Your task to perform on an android device: turn off location history Image 0: 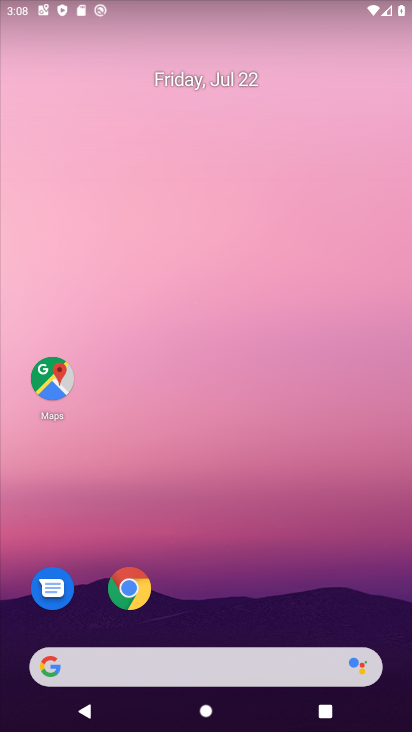
Step 0: drag from (195, 617) to (216, 151)
Your task to perform on an android device: turn off location history Image 1: 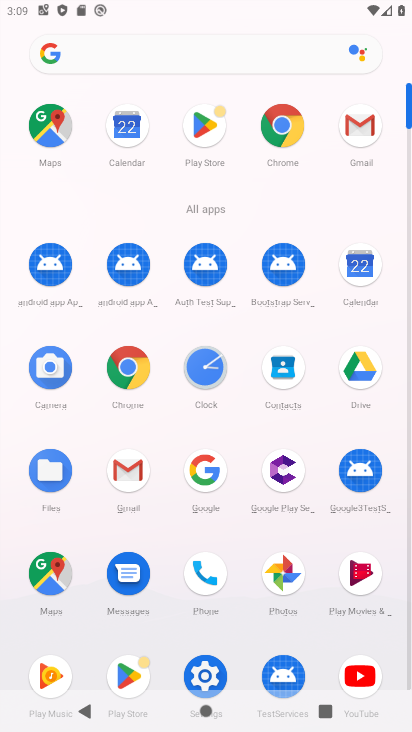
Step 1: click (204, 677)
Your task to perform on an android device: turn off location history Image 2: 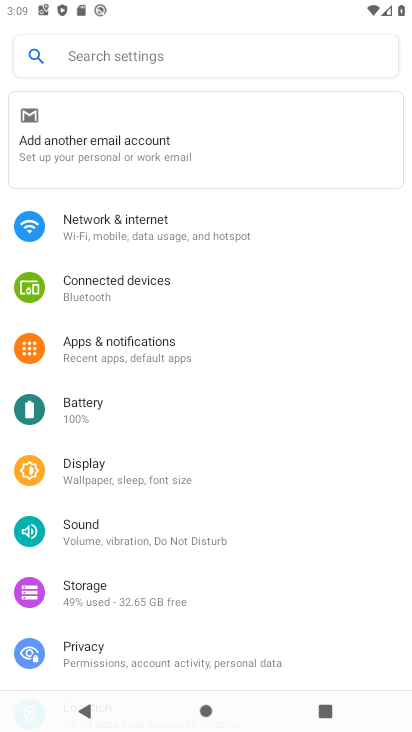
Step 2: drag from (113, 605) to (113, 219)
Your task to perform on an android device: turn off location history Image 3: 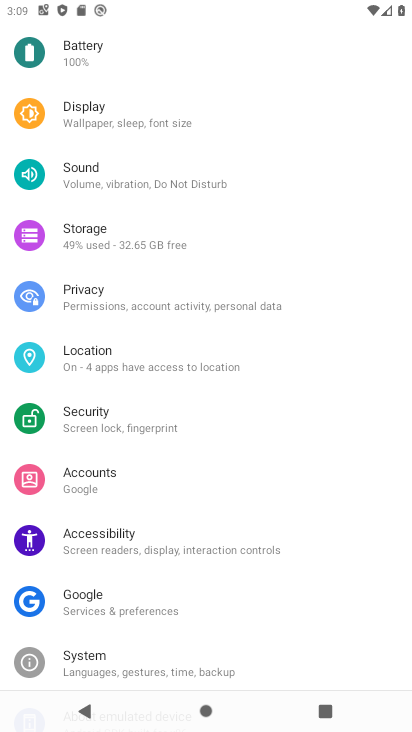
Step 3: click (110, 363)
Your task to perform on an android device: turn off location history Image 4: 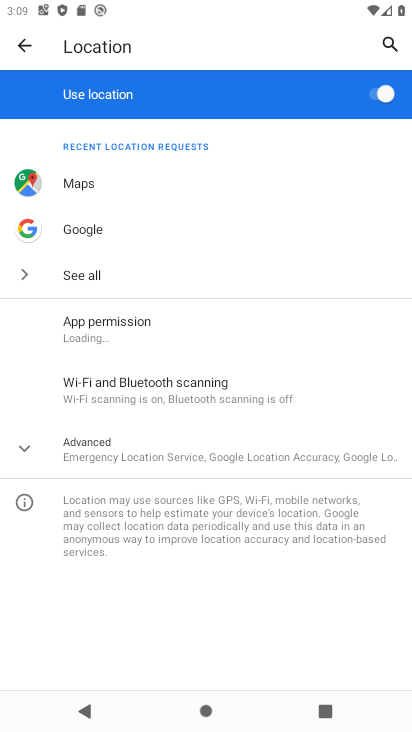
Step 4: click (135, 445)
Your task to perform on an android device: turn off location history Image 5: 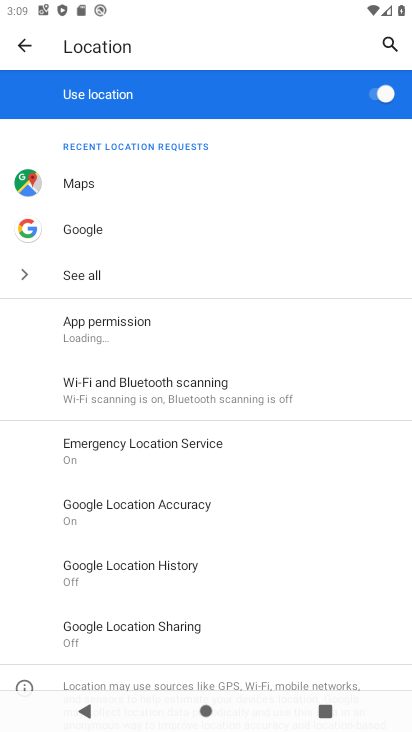
Step 5: click (141, 577)
Your task to perform on an android device: turn off location history Image 6: 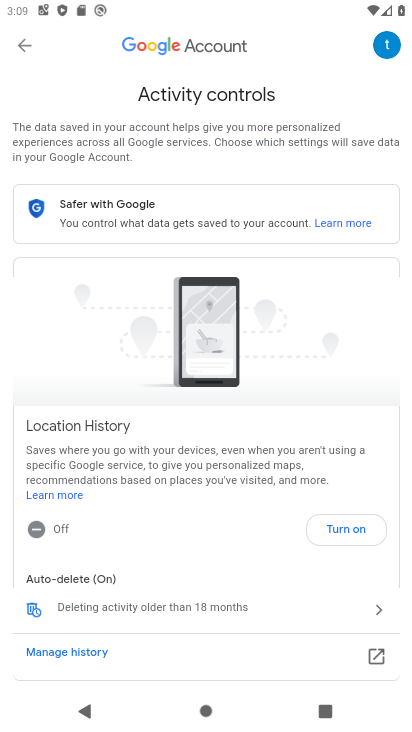
Step 6: task complete